Your task to perform on an android device: What's on my calendar today? Image 0: 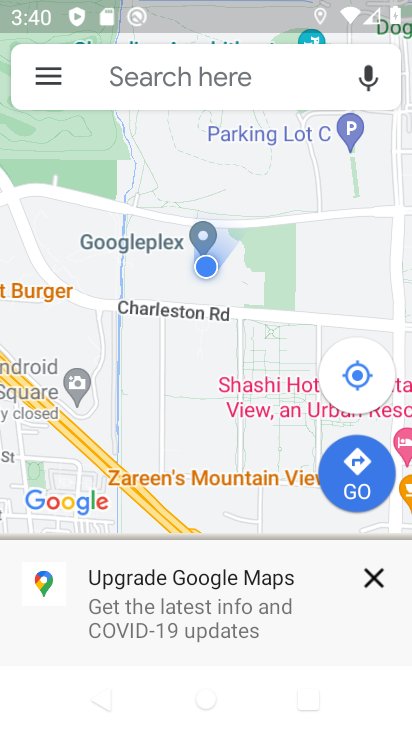
Step 0: press home button
Your task to perform on an android device: What's on my calendar today? Image 1: 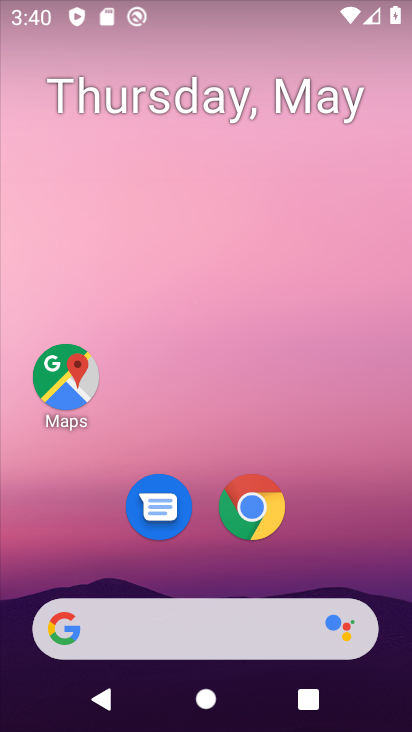
Step 1: drag from (209, 582) to (218, 37)
Your task to perform on an android device: What's on my calendar today? Image 2: 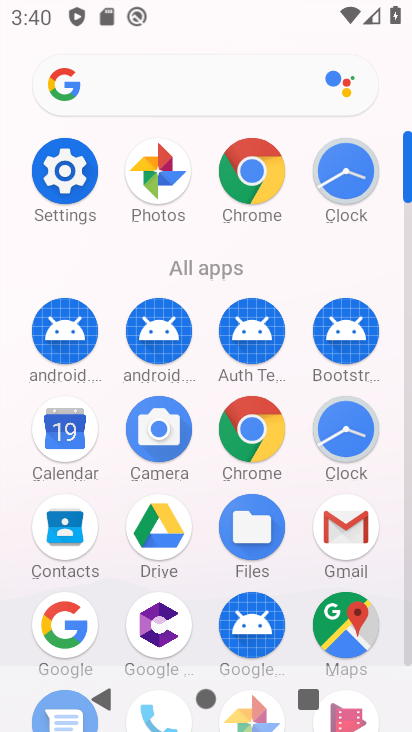
Step 2: click (60, 437)
Your task to perform on an android device: What's on my calendar today? Image 3: 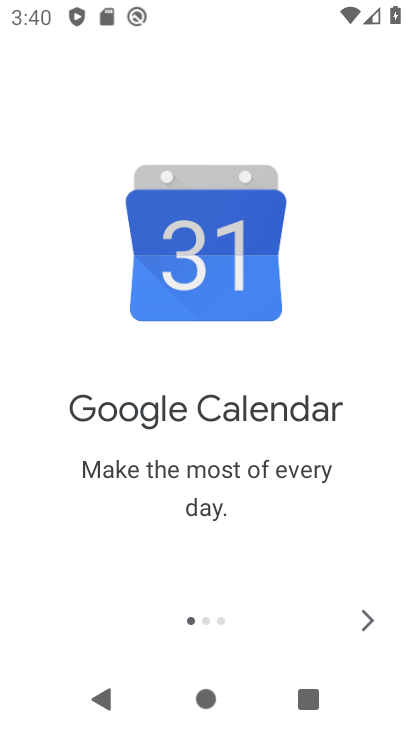
Step 3: click (367, 619)
Your task to perform on an android device: What's on my calendar today? Image 4: 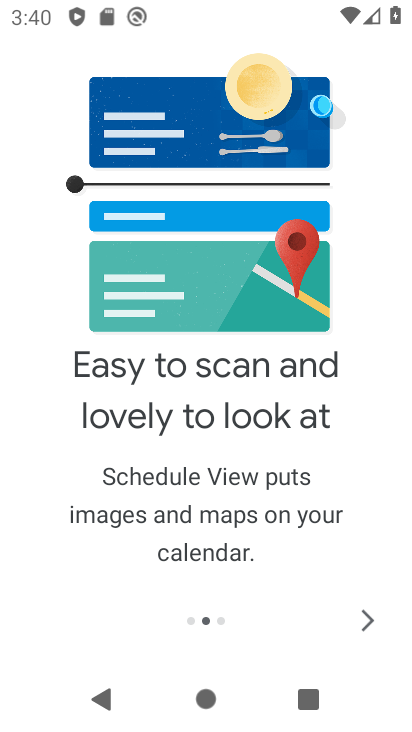
Step 4: click (365, 617)
Your task to perform on an android device: What's on my calendar today? Image 5: 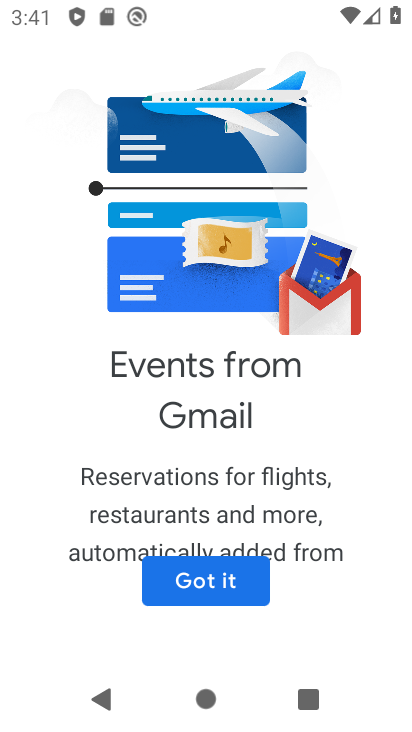
Step 5: click (225, 592)
Your task to perform on an android device: What's on my calendar today? Image 6: 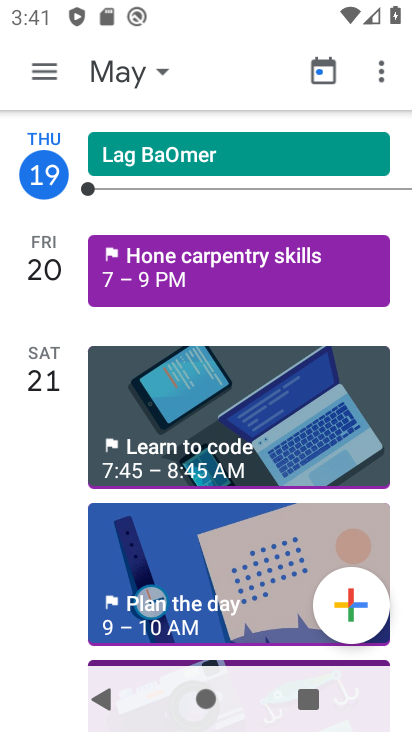
Step 6: click (124, 68)
Your task to perform on an android device: What's on my calendar today? Image 7: 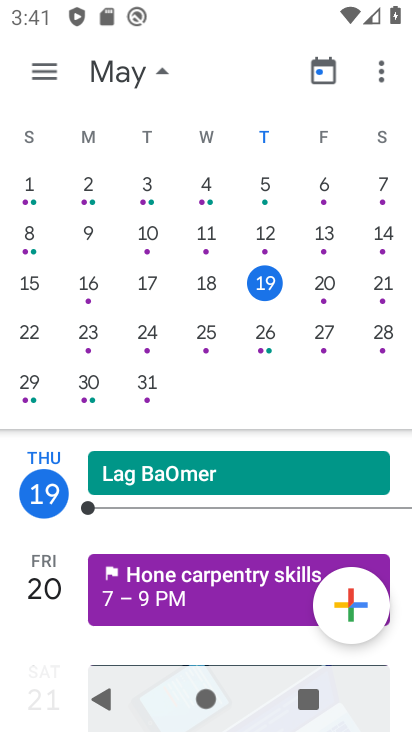
Step 7: click (268, 271)
Your task to perform on an android device: What's on my calendar today? Image 8: 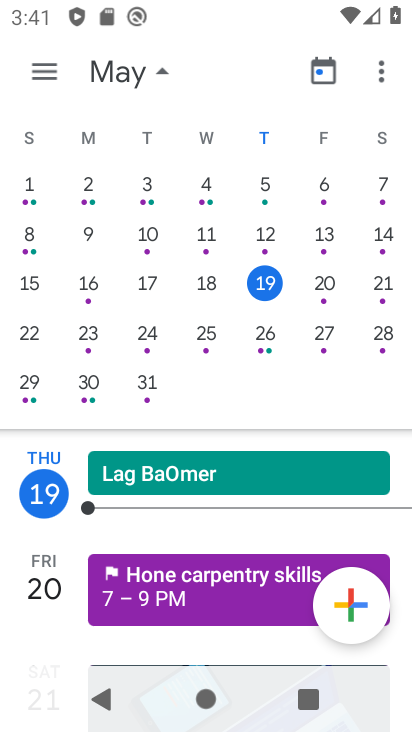
Step 8: task complete